Your task to perform on an android device: change notification settings in the gmail app Image 0: 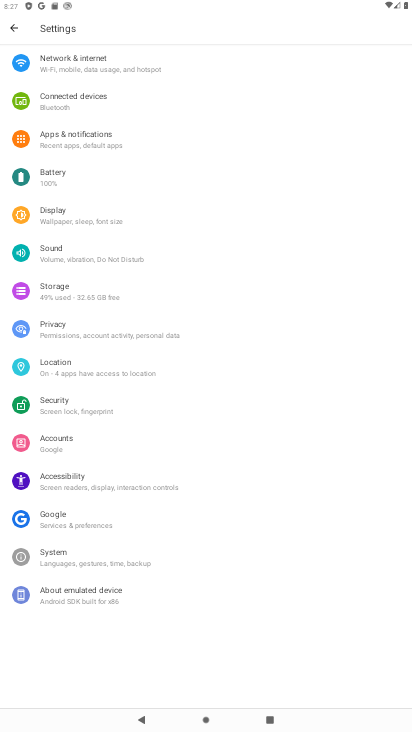
Step 0: click (128, 149)
Your task to perform on an android device: change notification settings in the gmail app Image 1: 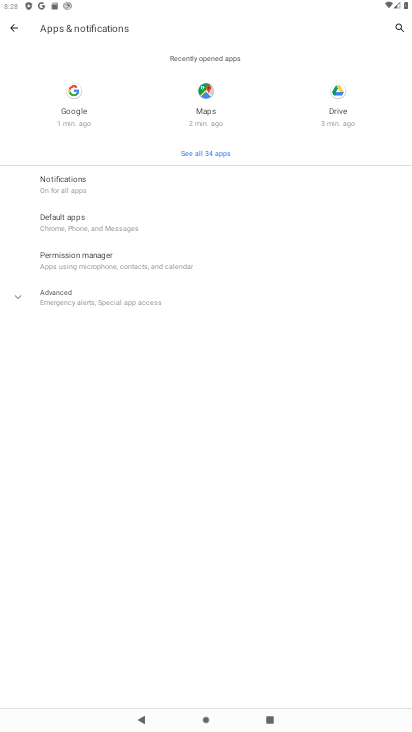
Step 1: click (158, 187)
Your task to perform on an android device: change notification settings in the gmail app Image 2: 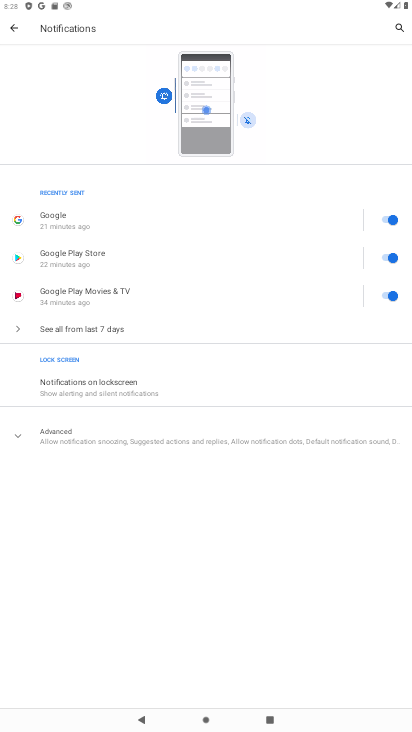
Step 2: task complete